Your task to perform on an android device: turn notification dots on Image 0: 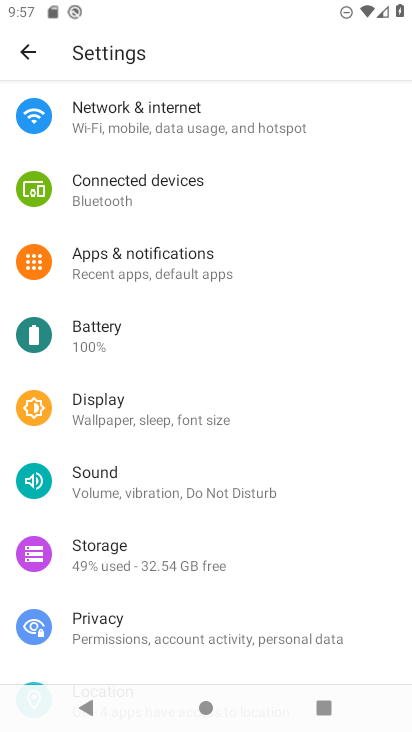
Step 0: drag from (150, 540) to (192, 218)
Your task to perform on an android device: turn notification dots on Image 1: 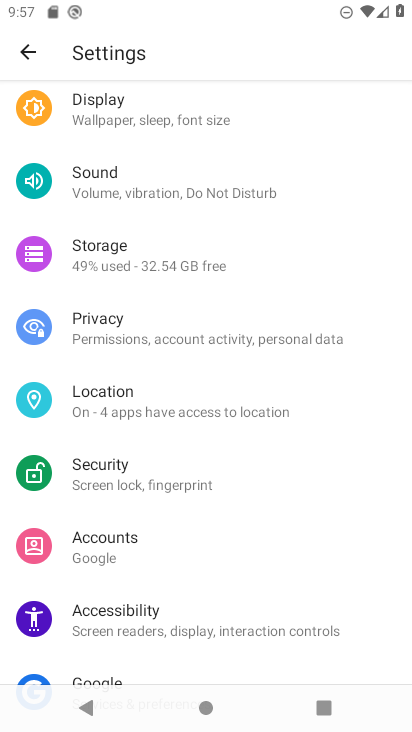
Step 1: drag from (161, 231) to (267, 685)
Your task to perform on an android device: turn notification dots on Image 2: 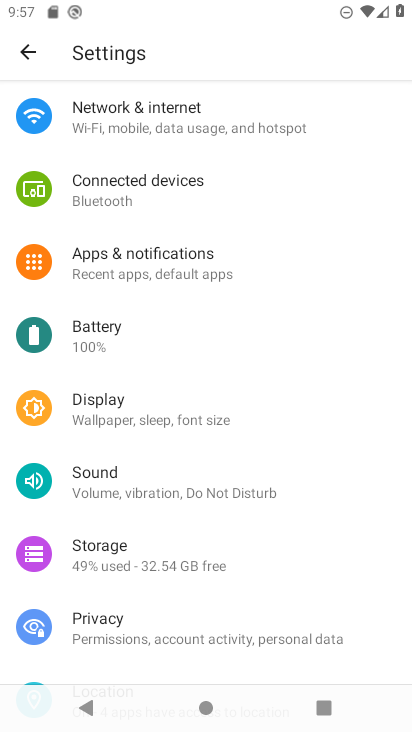
Step 2: click (178, 266)
Your task to perform on an android device: turn notification dots on Image 3: 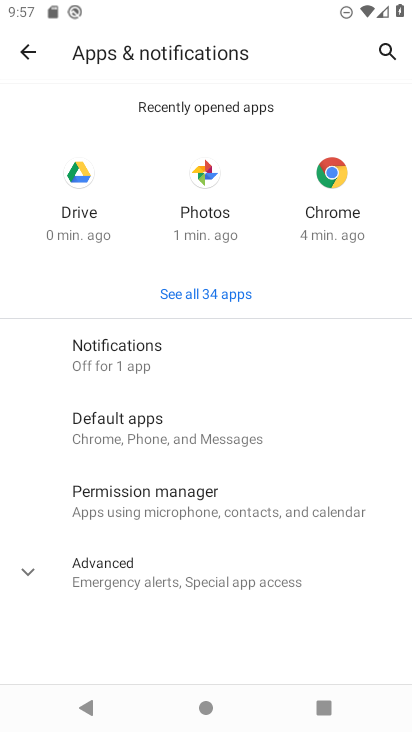
Step 3: drag from (234, 580) to (234, 358)
Your task to perform on an android device: turn notification dots on Image 4: 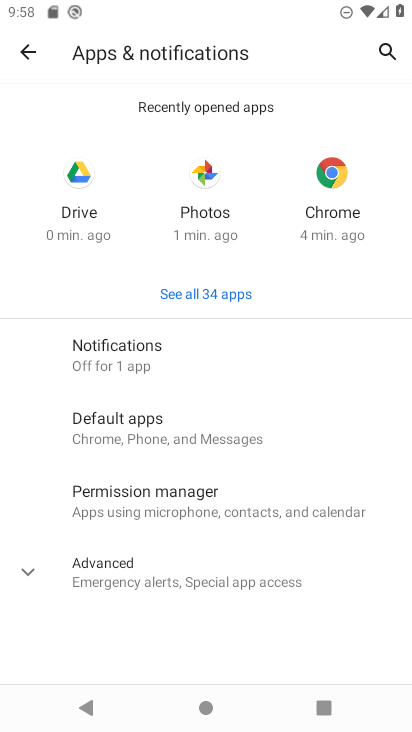
Step 4: click (185, 360)
Your task to perform on an android device: turn notification dots on Image 5: 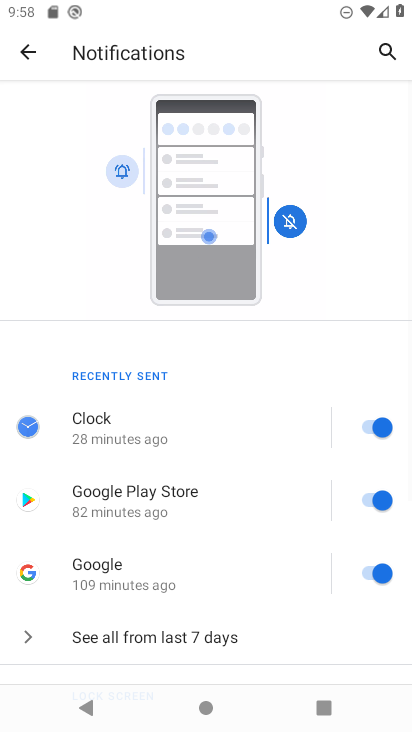
Step 5: drag from (203, 507) to (302, 7)
Your task to perform on an android device: turn notification dots on Image 6: 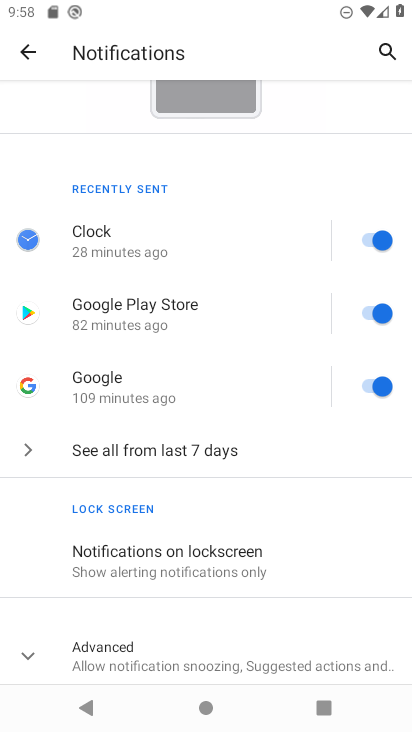
Step 6: click (136, 649)
Your task to perform on an android device: turn notification dots on Image 7: 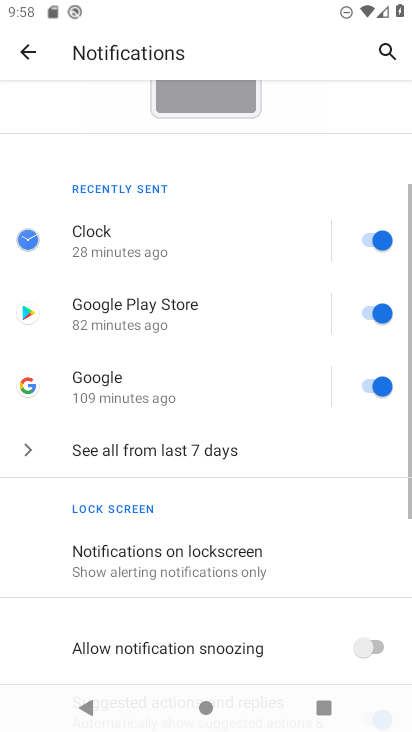
Step 7: drag from (197, 647) to (286, 24)
Your task to perform on an android device: turn notification dots on Image 8: 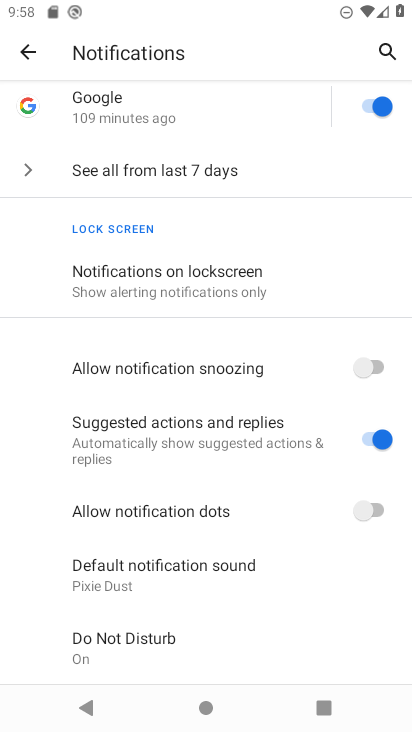
Step 8: click (362, 504)
Your task to perform on an android device: turn notification dots on Image 9: 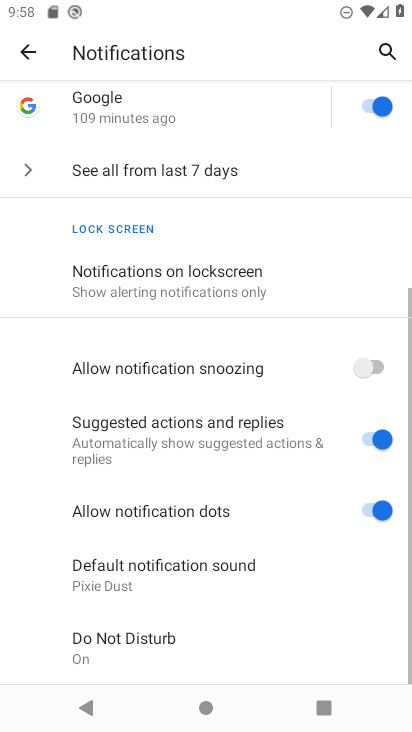
Step 9: task complete